Your task to perform on an android device: open a new tab in the chrome app Image 0: 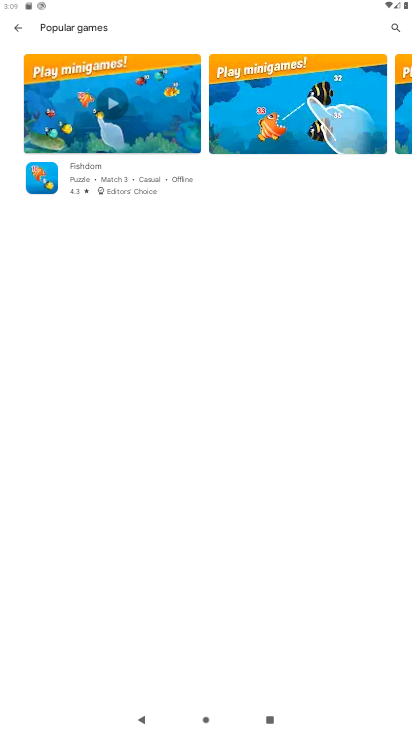
Step 0: press home button
Your task to perform on an android device: open a new tab in the chrome app Image 1: 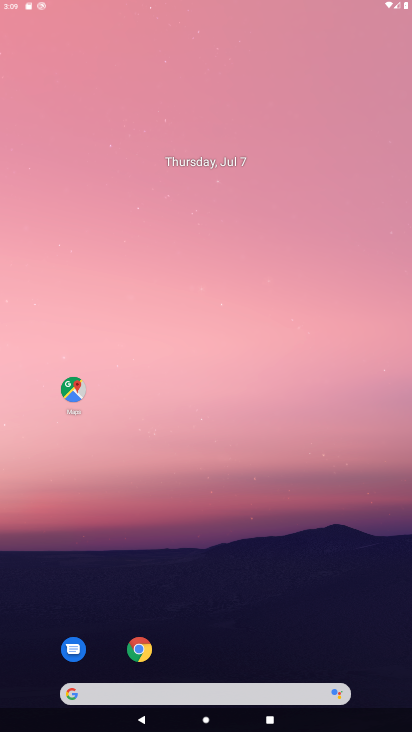
Step 1: press back button
Your task to perform on an android device: open a new tab in the chrome app Image 2: 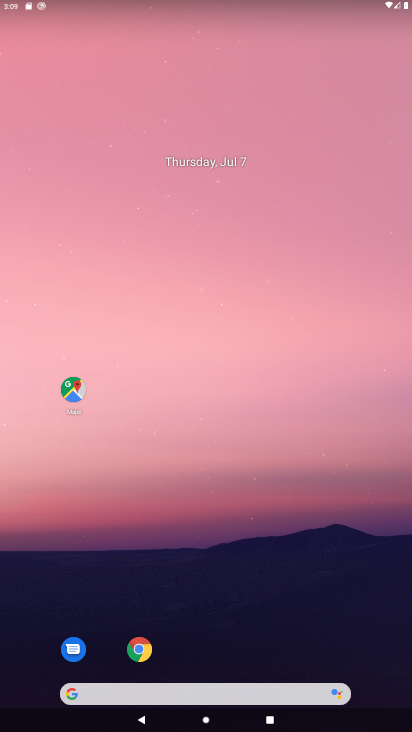
Step 2: click (138, 658)
Your task to perform on an android device: open a new tab in the chrome app Image 3: 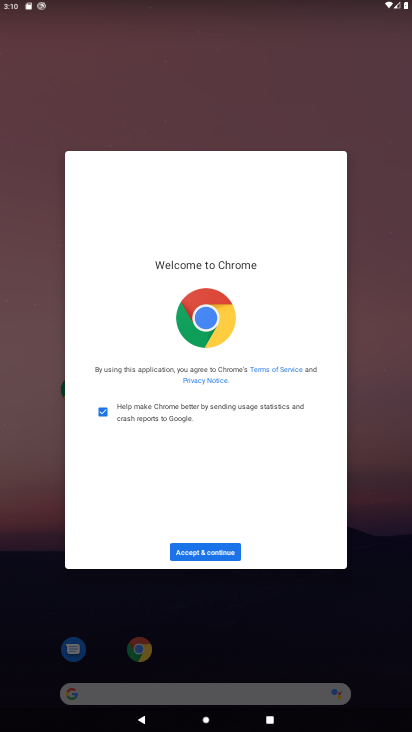
Step 3: click (204, 555)
Your task to perform on an android device: open a new tab in the chrome app Image 4: 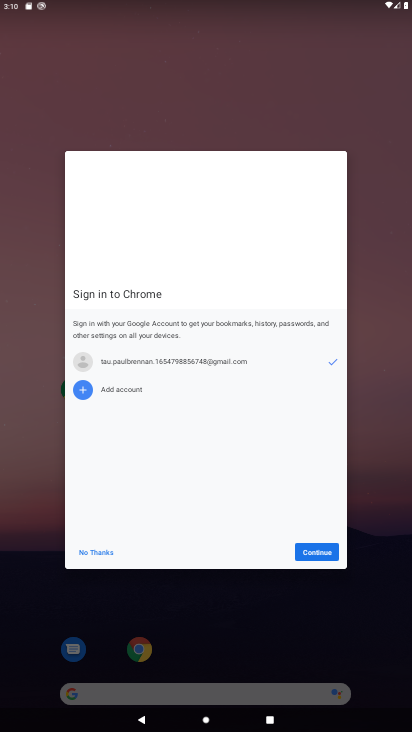
Step 4: click (310, 543)
Your task to perform on an android device: open a new tab in the chrome app Image 5: 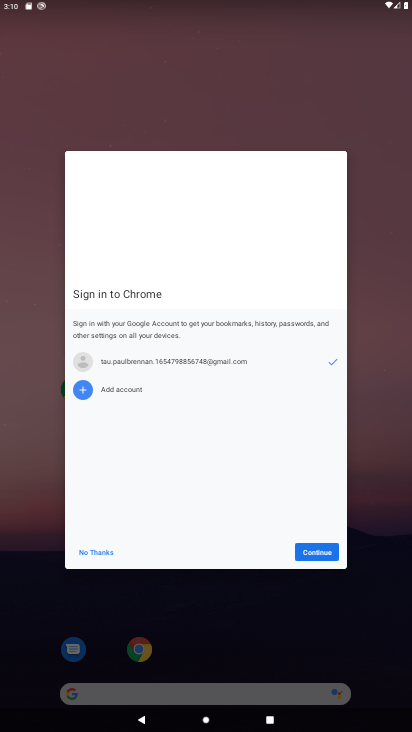
Step 5: click (311, 553)
Your task to perform on an android device: open a new tab in the chrome app Image 6: 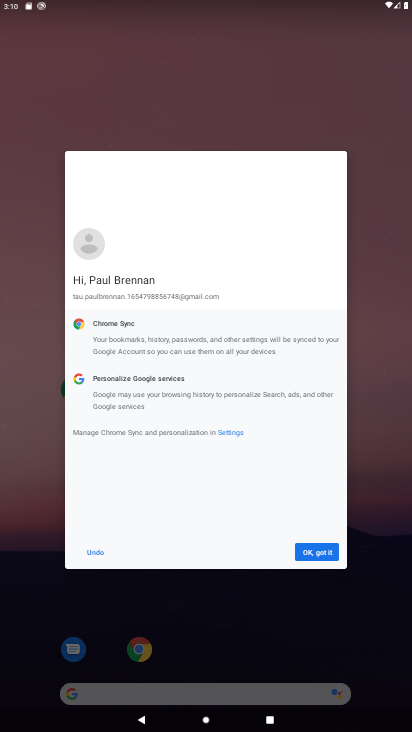
Step 6: click (324, 552)
Your task to perform on an android device: open a new tab in the chrome app Image 7: 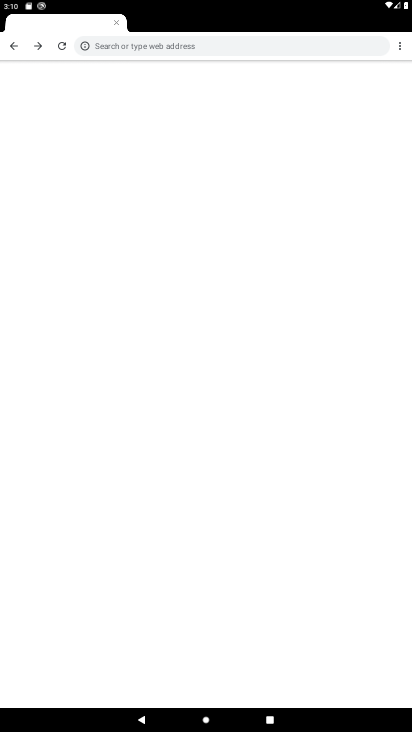
Step 7: press back button
Your task to perform on an android device: open a new tab in the chrome app Image 8: 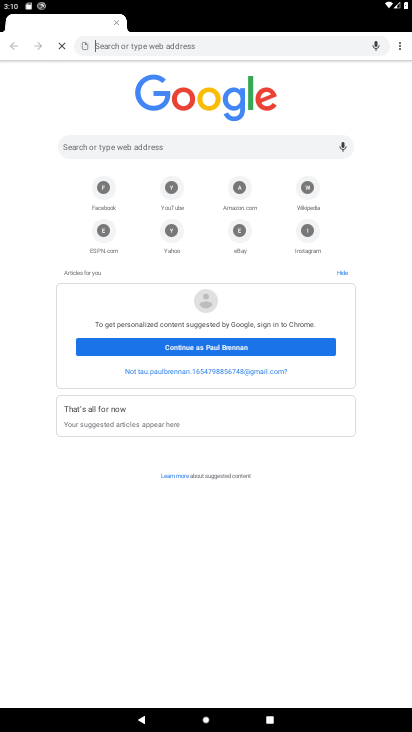
Step 8: press back button
Your task to perform on an android device: open a new tab in the chrome app Image 9: 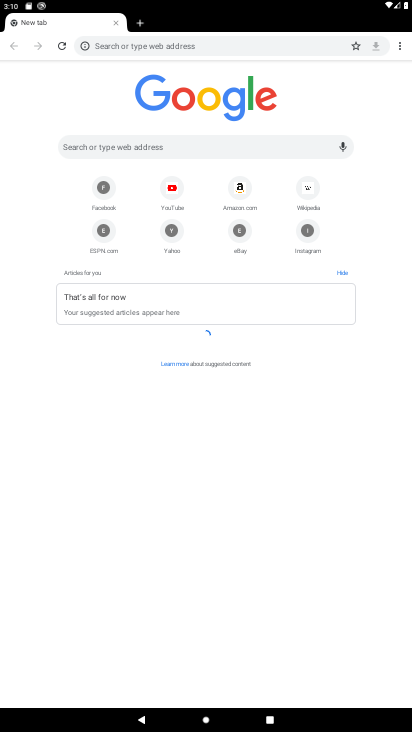
Step 9: press home button
Your task to perform on an android device: open a new tab in the chrome app Image 10: 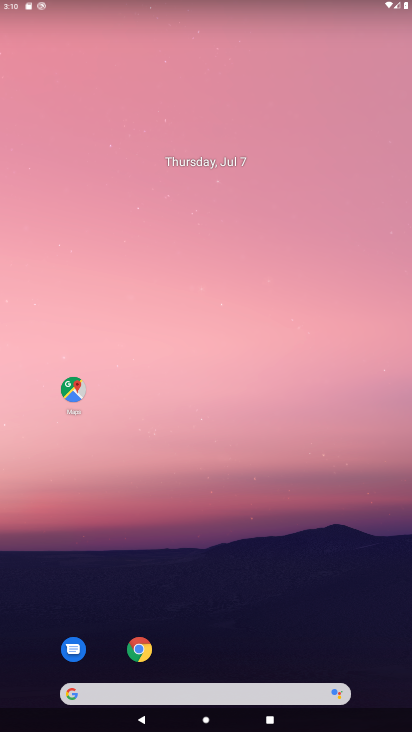
Step 10: click (136, 652)
Your task to perform on an android device: open a new tab in the chrome app Image 11: 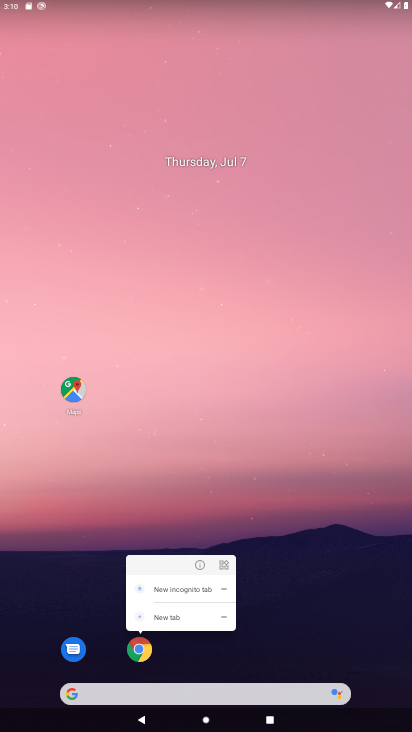
Step 11: click (139, 652)
Your task to perform on an android device: open a new tab in the chrome app Image 12: 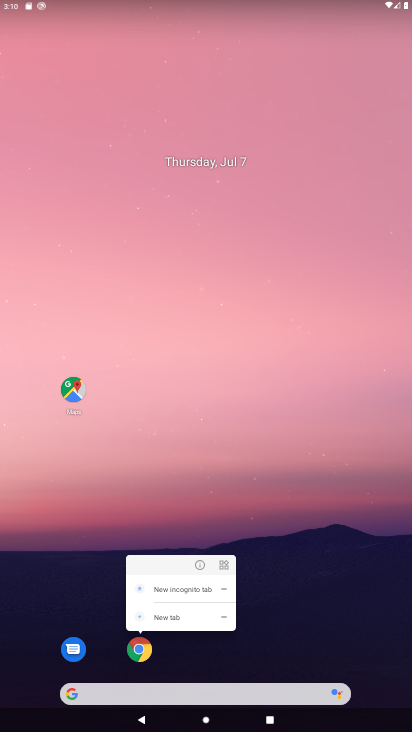
Step 12: click (145, 643)
Your task to perform on an android device: open a new tab in the chrome app Image 13: 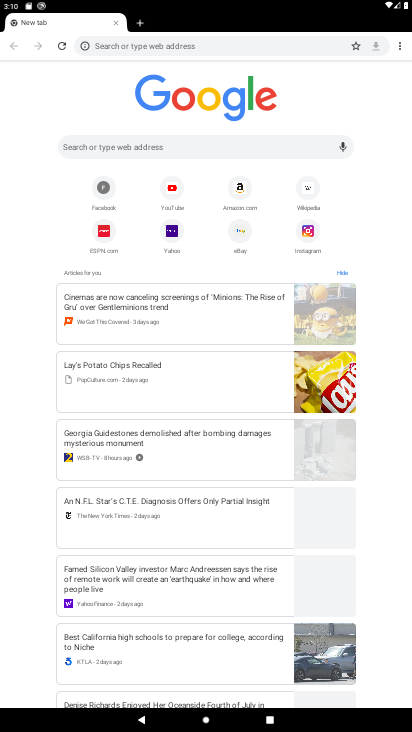
Step 13: task complete